Your task to perform on an android device: See recent photos Image 0: 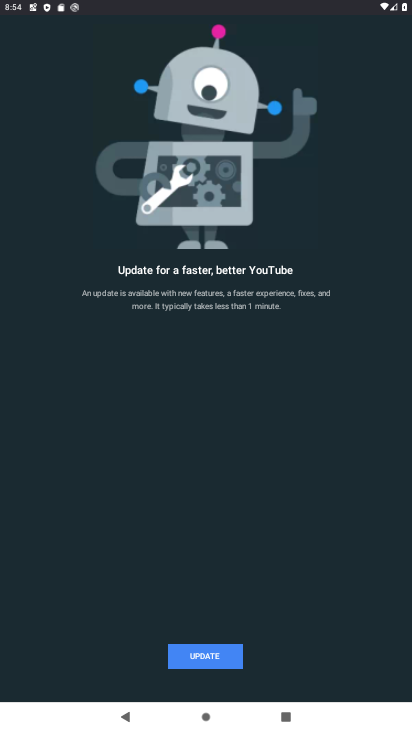
Step 0: press home button
Your task to perform on an android device: See recent photos Image 1: 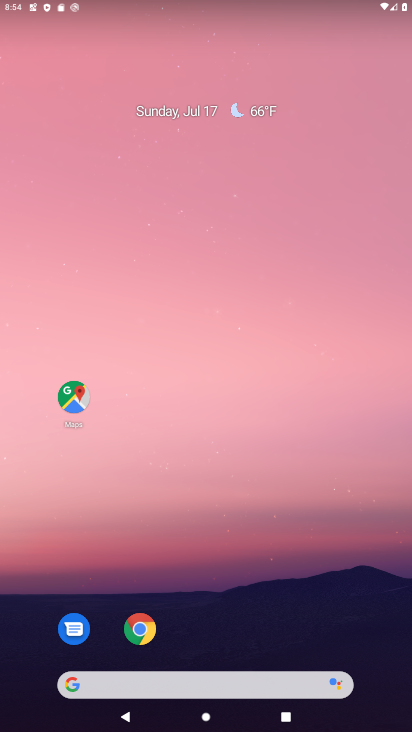
Step 1: drag from (210, 650) to (205, 26)
Your task to perform on an android device: See recent photos Image 2: 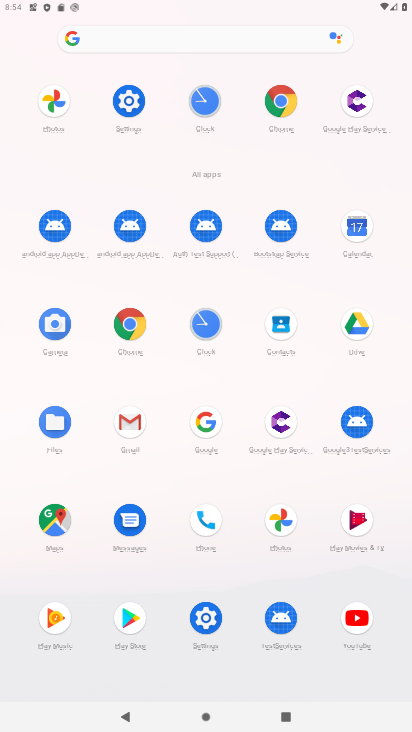
Step 2: click (279, 510)
Your task to perform on an android device: See recent photos Image 3: 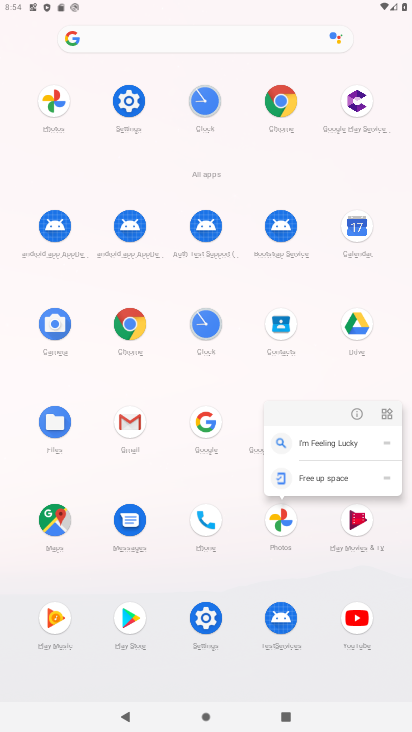
Step 3: click (275, 518)
Your task to perform on an android device: See recent photos Image 4: 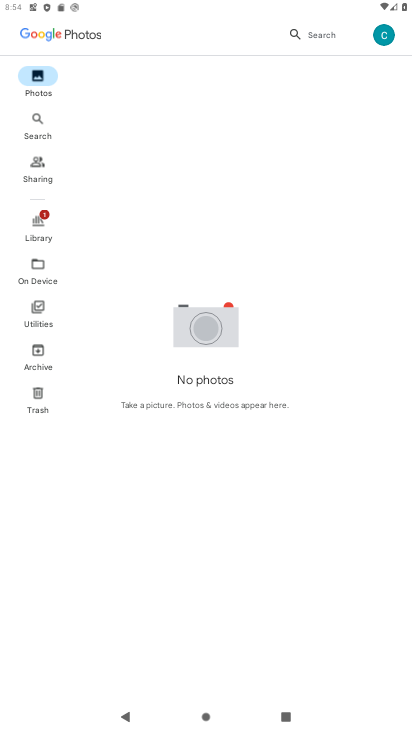
Step 4: task complete